Your task to perform on an android device: Turn on the flashlight Image 0: 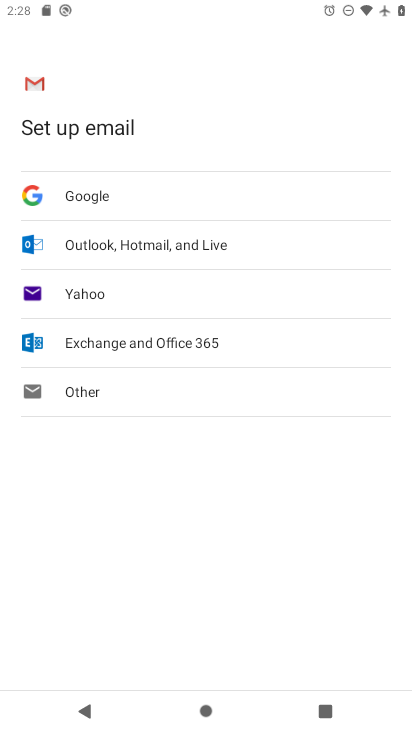
Step 0: press home button
Your task to perform on an android device: Turn on the flashlight Image 1: 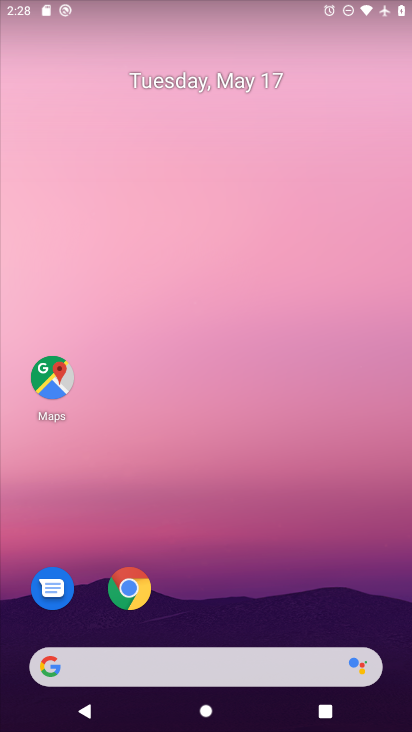
Step 1: drag from (197, 611) to (148, 98)
Your task to perform on an android device: Turn on the flashlight Image 2: 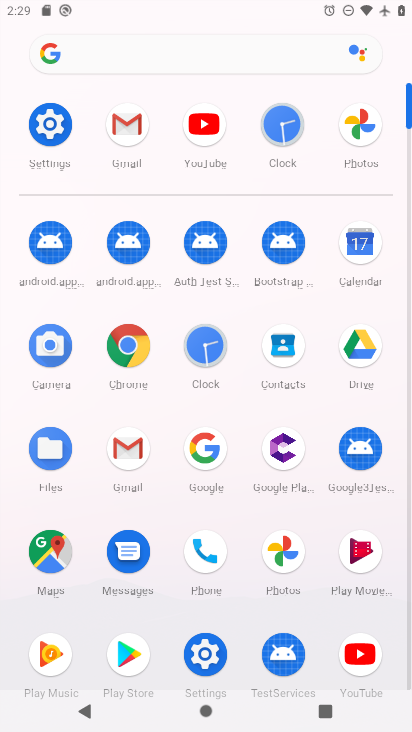
Step 2: click (51, 124)
Your task to perform on an android device: Turn on the flashlight Image 3: 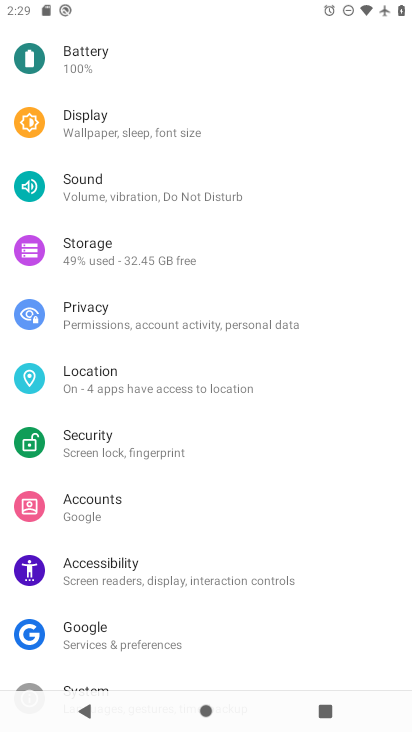
Step 3: drag from (203, 91) to (142, 444)
Your task to perform on an android device: Turn on the flashlight Image 4: 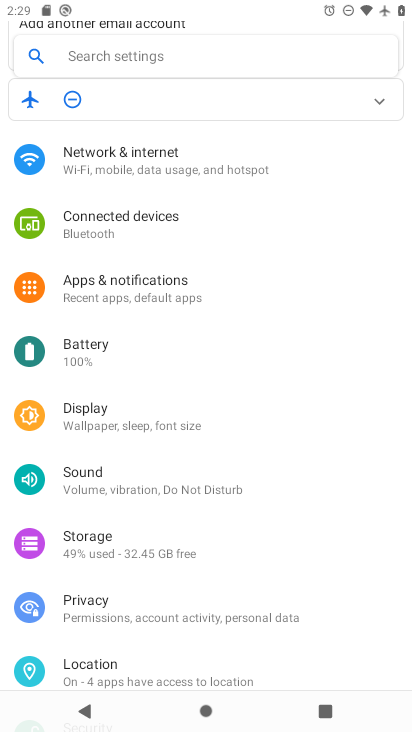
Step 4: click (125, 52)
Your task to perform on an android device: Turn on the flashlight Image 5: 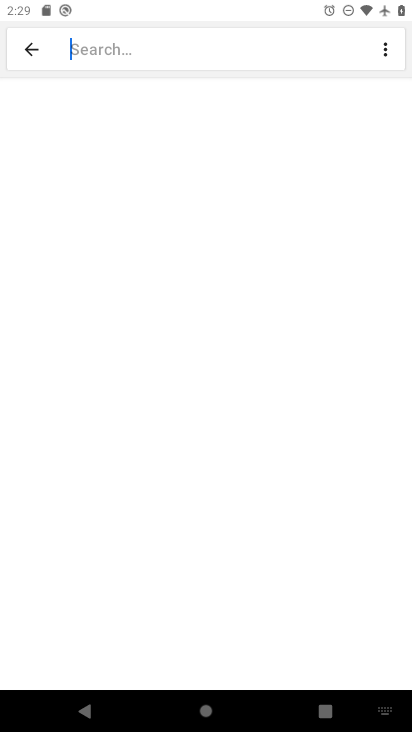
Step 5: click (116, 48)
Your task to perform on an android device: Turn on the flashlight Image 6: 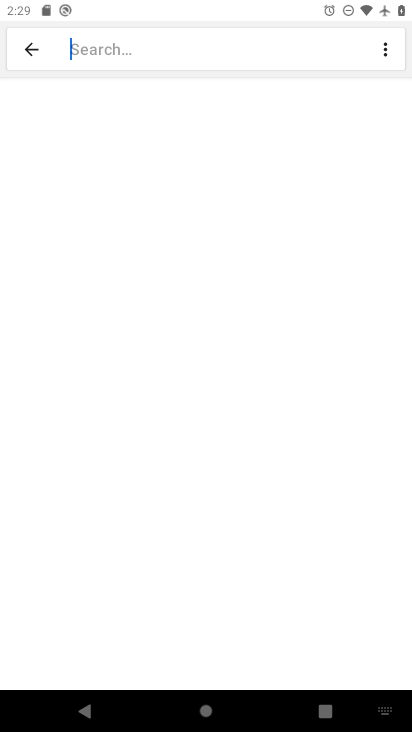
Step 6: type "flashlight"
Your task to perform on an android device: Turn on the flashlight Image 7: 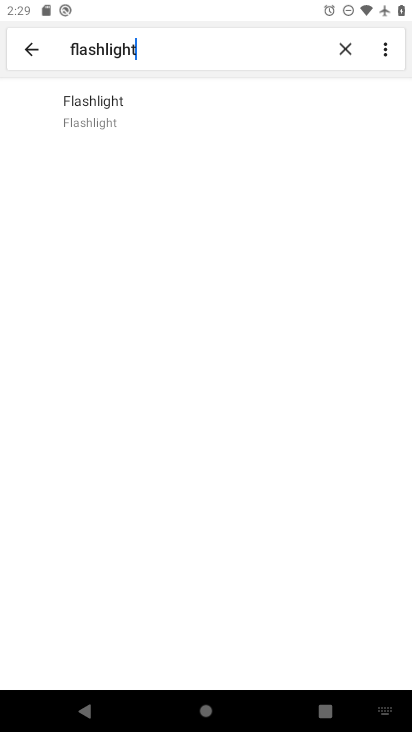
Step 7: click (105, 125)
Your task to perform on an android device: Turn on the flashlight Image 8: 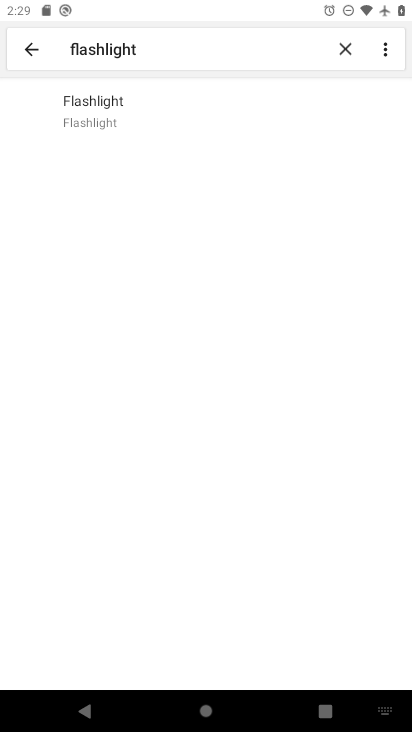
Step 8: click (104, 119)
Your task to perform on an android device: Turn on the flashlight Image 9: 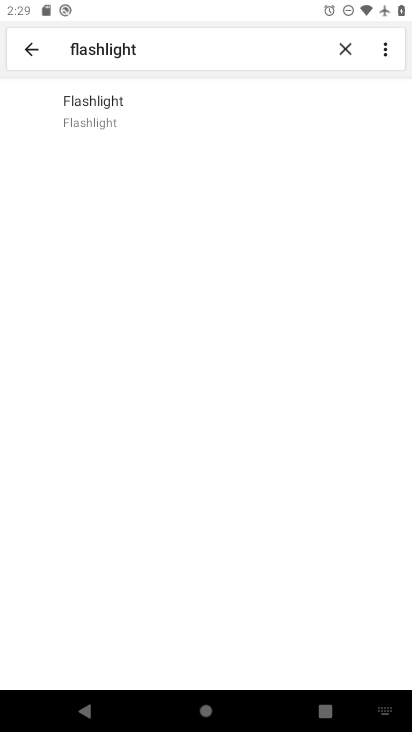
Step 9: click (104, 119)
Your task to perform on an android device: Turn on the flashlight Image 10: 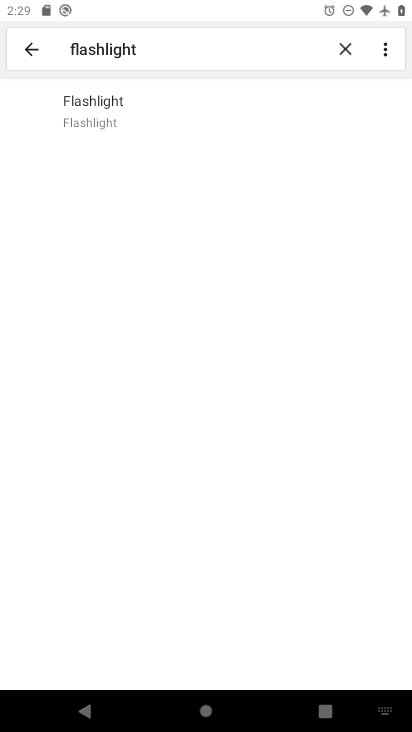
Step 10: click (104, 119)
Your task to perform on an android device: Turn on the flashlight Image 11: 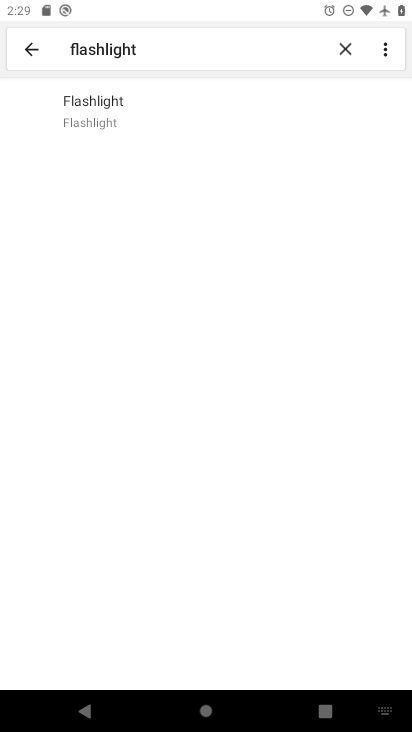
Step 11: click (104, 119)
Your task to perform on an android device: Turn on the flashlight Image 12: 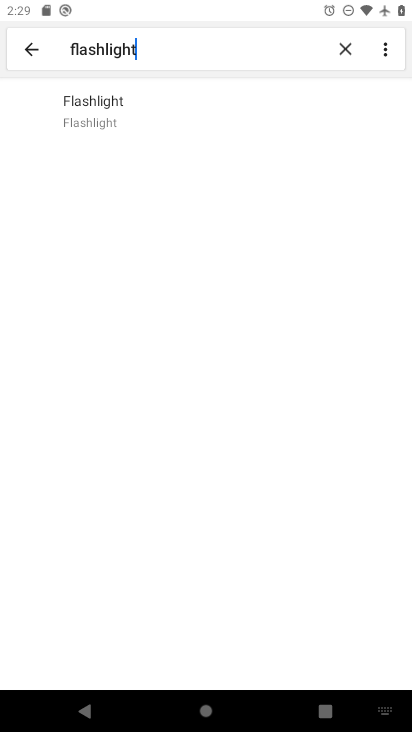
Step 12: task complete